Your task to perform on an android device: What's the weather today? Image 0: 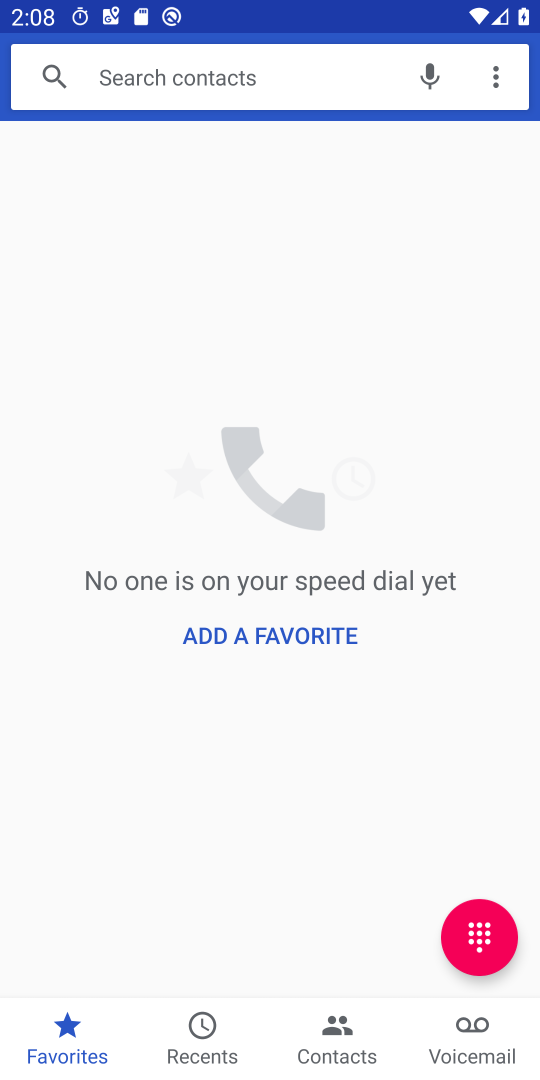
Step 0: press home button
Your task to perform on an android device: What's the weather today? Image 1: 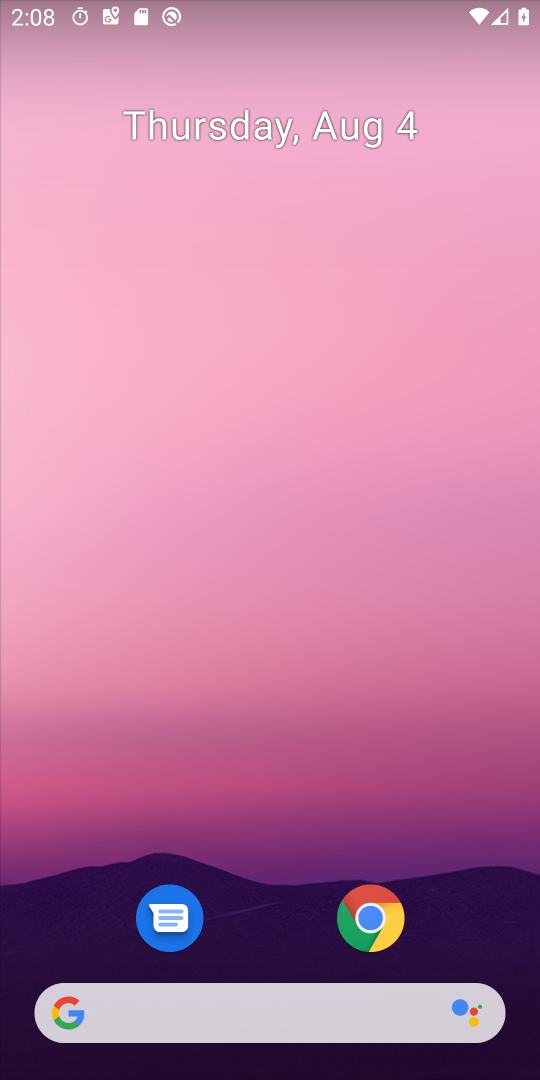
Step 1: drag from (287, 908) to (315, 373)
Your task to perform on an android device: What's the weather today? Image 2: 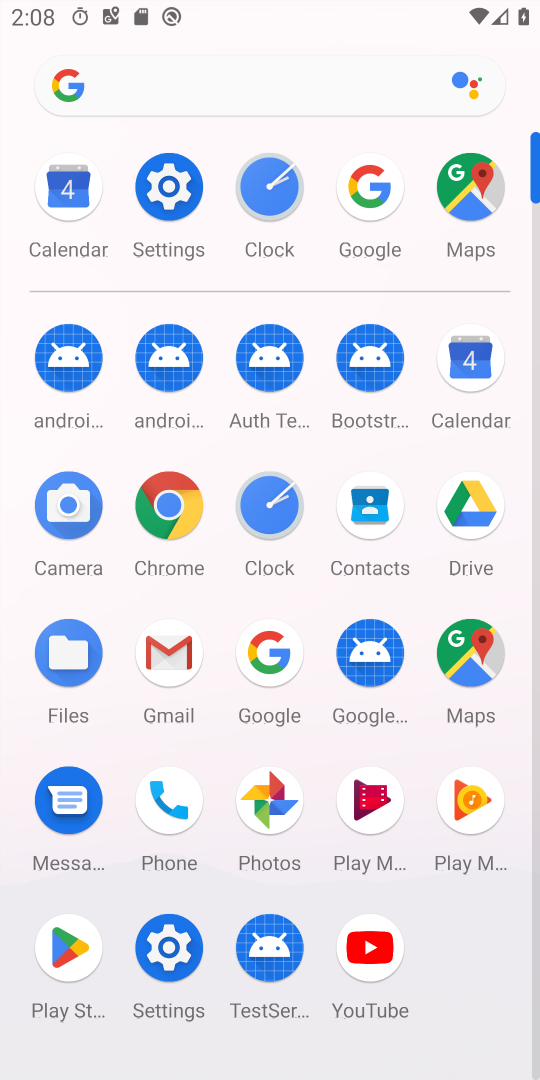
Step 2: click (253, 662)
Your task to perform on an android device: What's the weather today? Image 3: 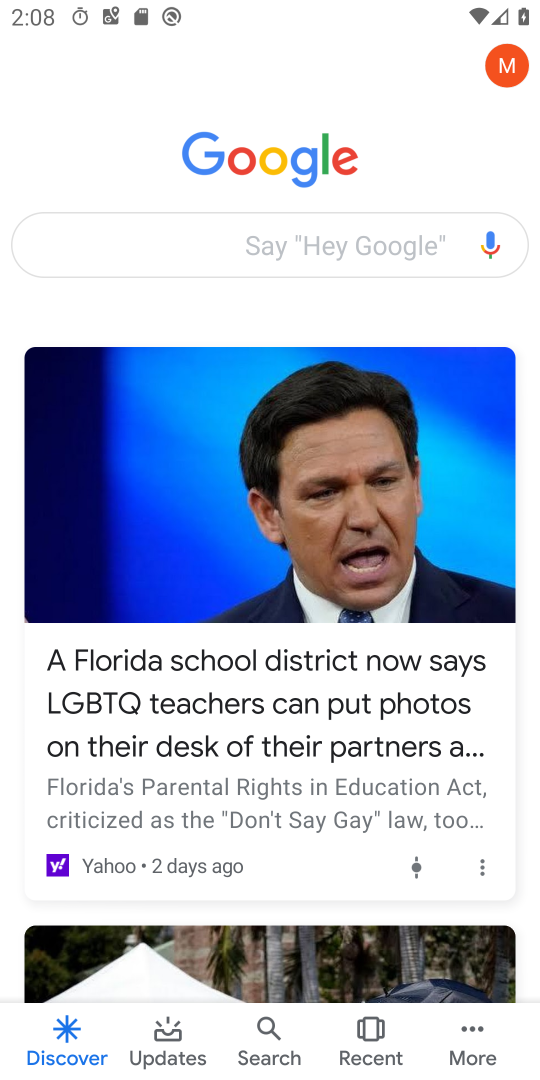
Step 3: click (224, 217)
Your task to perform on an android device: What's the weather today? Image 4: 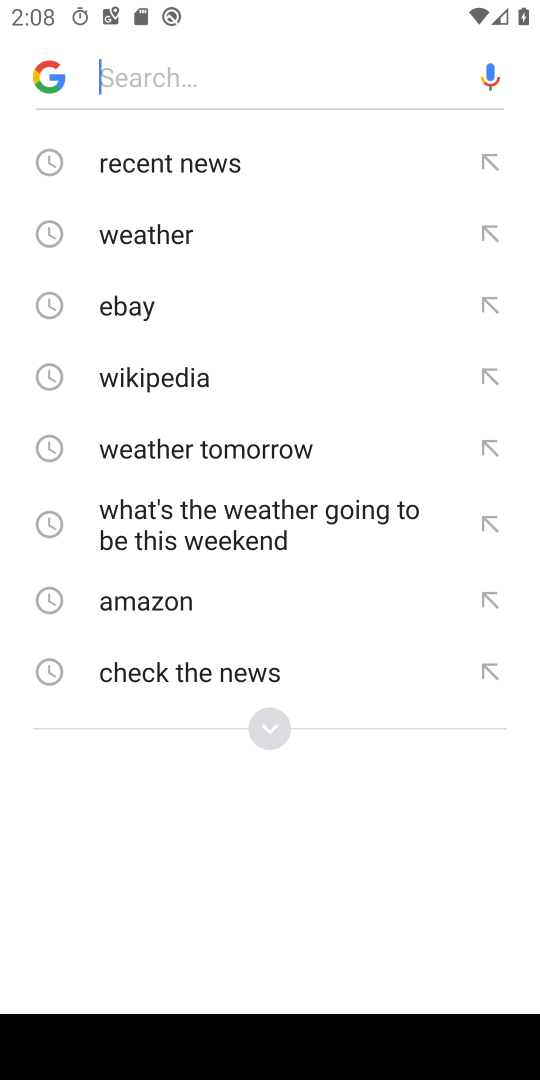
Step 4: click (182, 228)
Your task to perform on an android device: What's the weather today? Image 5: 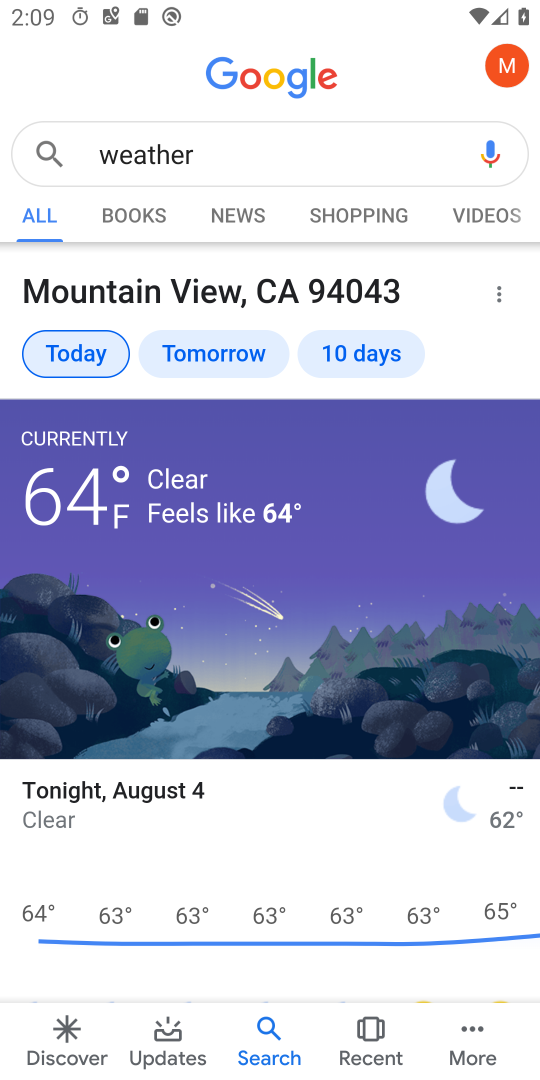
Step 5: task complete